Your task to perform on an android device: Open CNN.com Image 0: 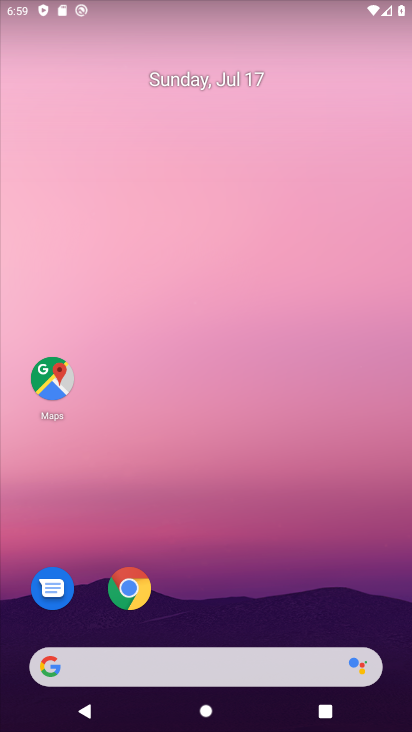
Step 0: drag from (339, 607) to (265, 17)
Your task to perform on an android device: Open CNN.com Image 1: 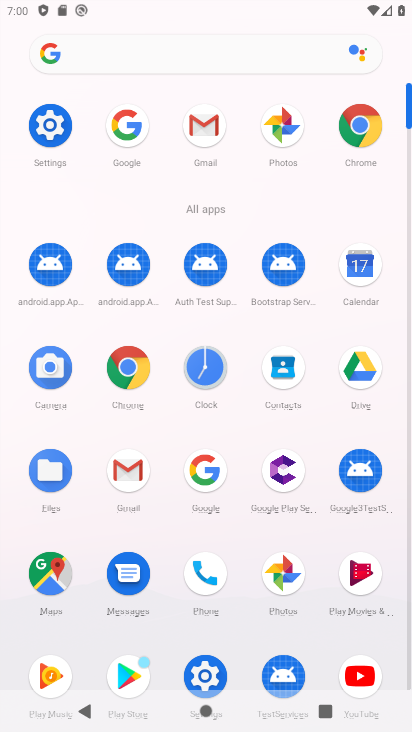
Step 1: click (195, 485)
Your task to perform on an android device: Open CNN.com Image 2: 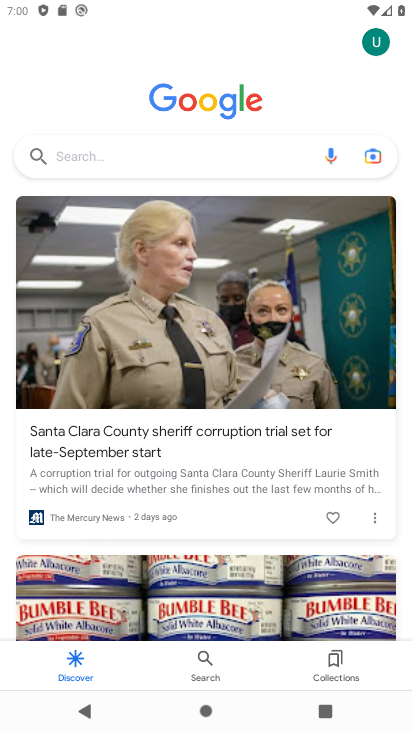
Step 2: click (174, 153)
Your task to perform on an android device: Open CNN.com Image 3: 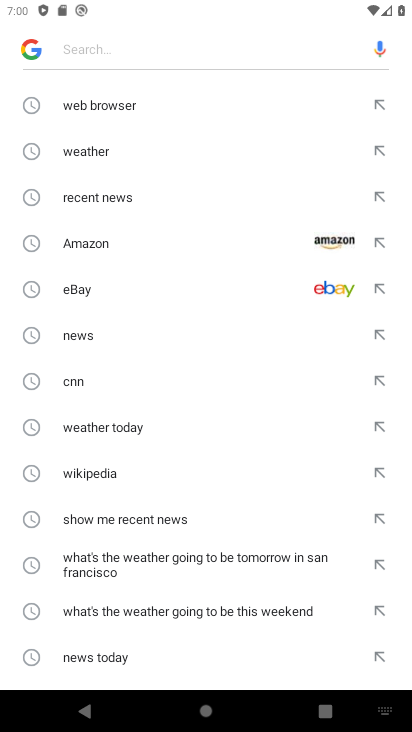
Step 3: click (111, 392)
Your task to perform on an android device: Open CNN.com Image 4: 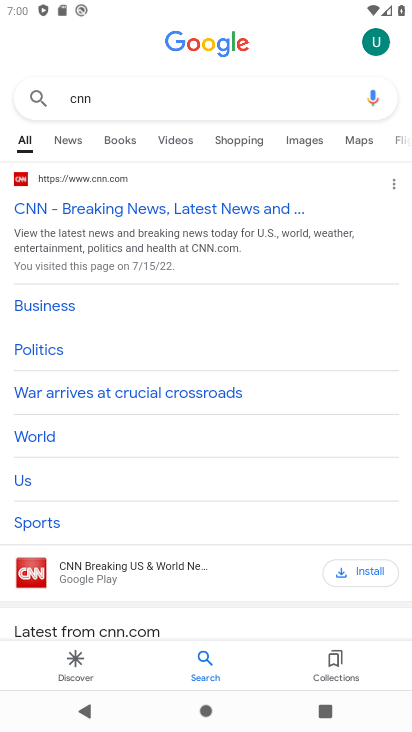
Step 4: task complete